Your task to perform on an android device: Go to Amazon Image 0: 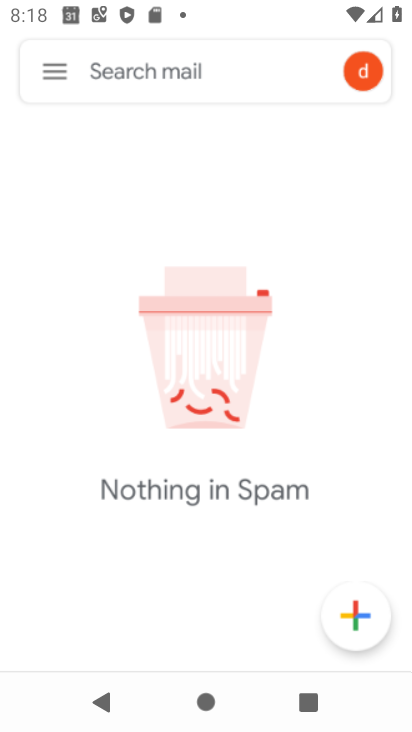
Step 0: press home button
Your task to perform on an android device: Go to Amazon Image 1: 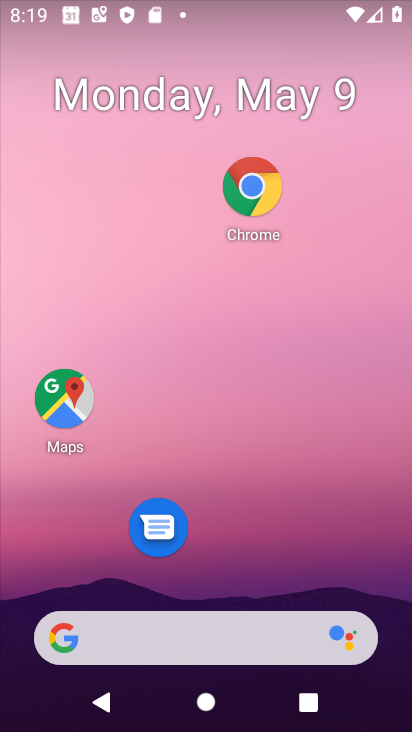
Step 1: click (244, 178)
Your task to perform on an android device: Go to Amazon Image 2: 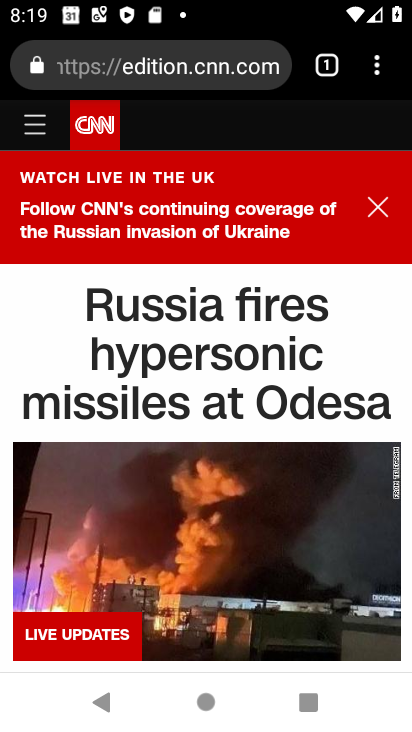
Step 2: click (323, 61)
Your task to perform on an android device: Go to Amazon Image 3: 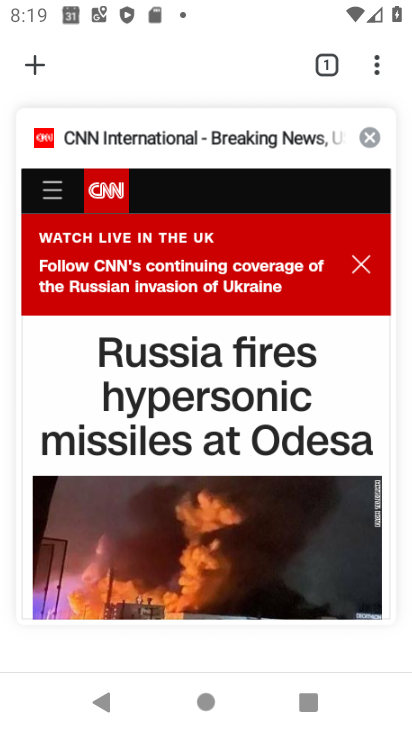
Step 3: click (365, 129)
Your task to perform on an android device: Go to Amazon Image 4: 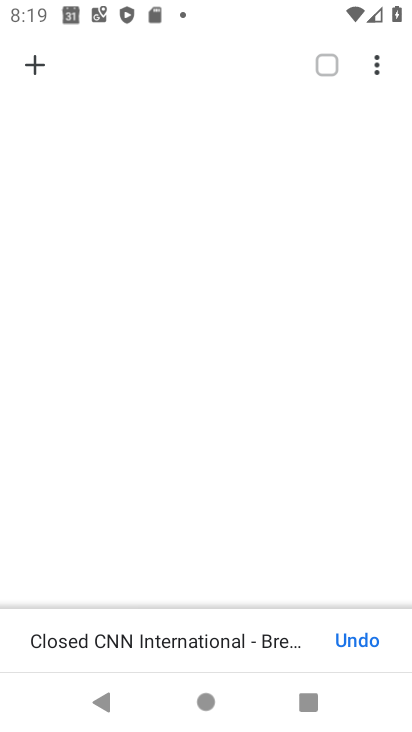
Step 4: click (38, 63)
Your task to perform on an android device: Go to Amazon Image 5: 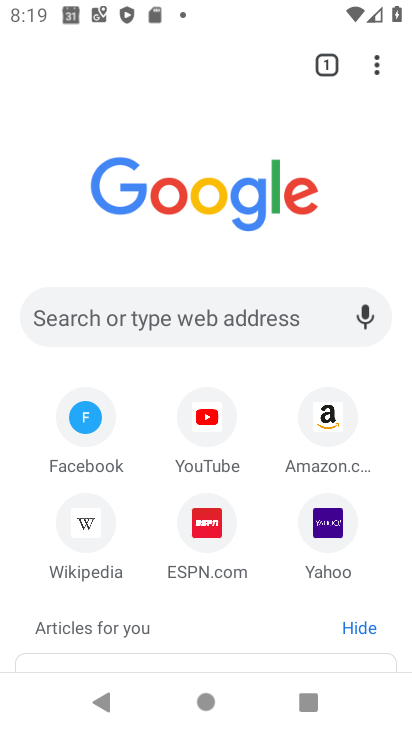
Step 5: click (330, 412)
Your task to perform on an android device: Go to Amazon Image 6: 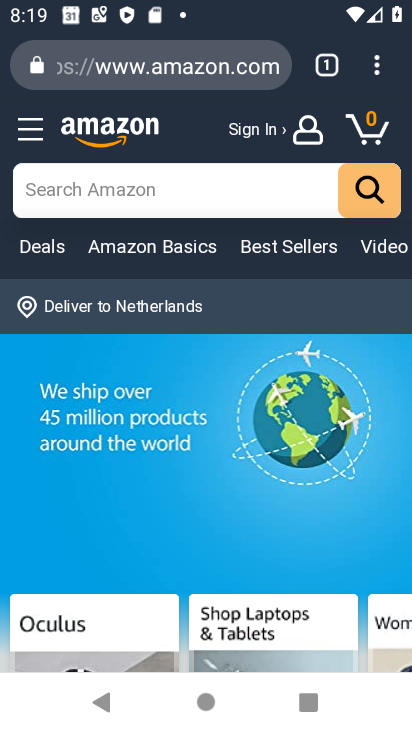
Step 6: task complete